Your task to perform on an android device: Open Yahoo.com Image 0: 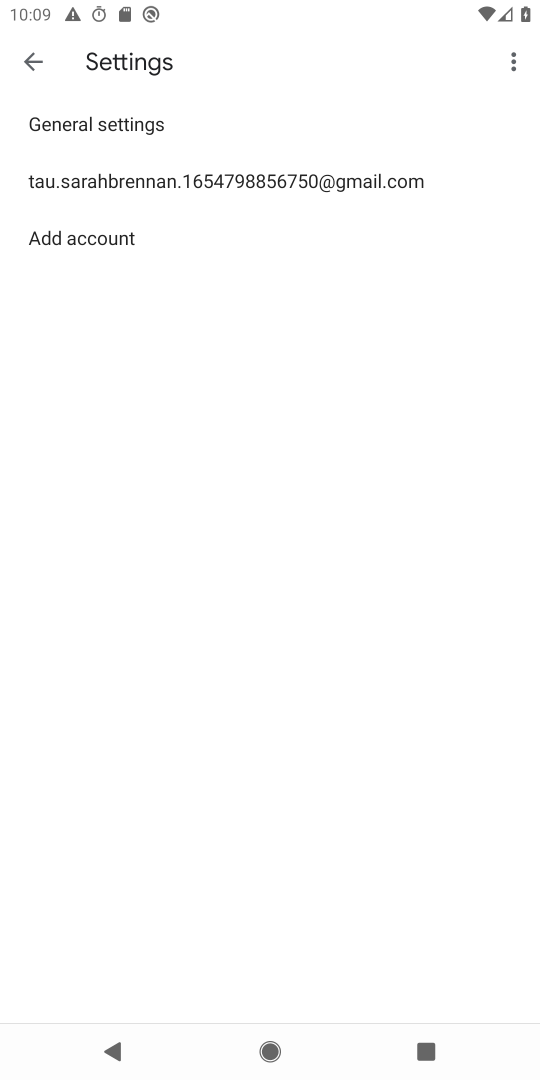
Step 0: press home button
Your task to perform on an android device: Open Yahoo.com Image 1: 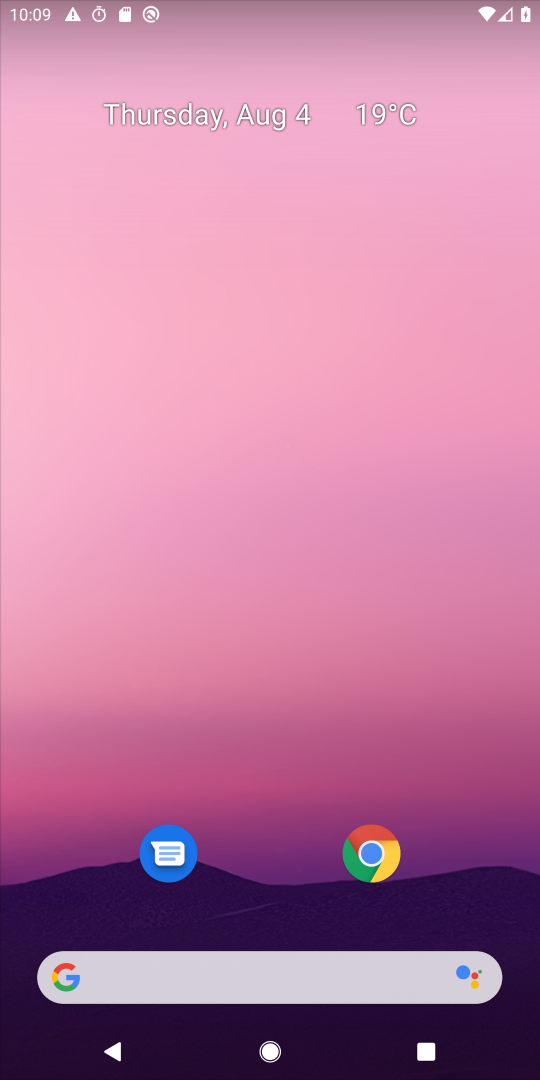
Step 1: click (381, 869)
Your task to perform on an android device: Open Yahoo.com Image 2: 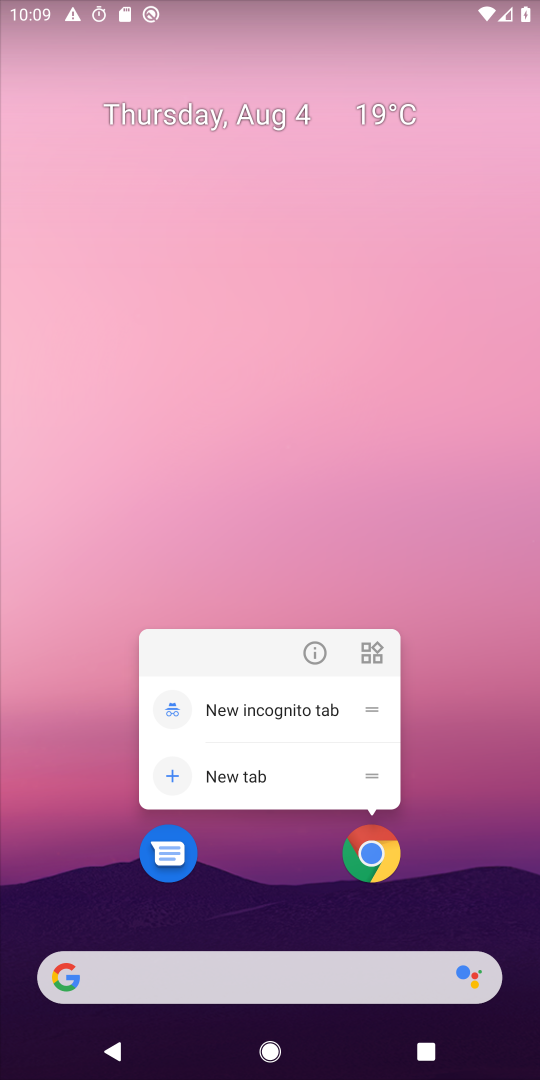
Step 2: click (377, 881)
Your task to perform on an android device: Open Yahoo.com Image 3: 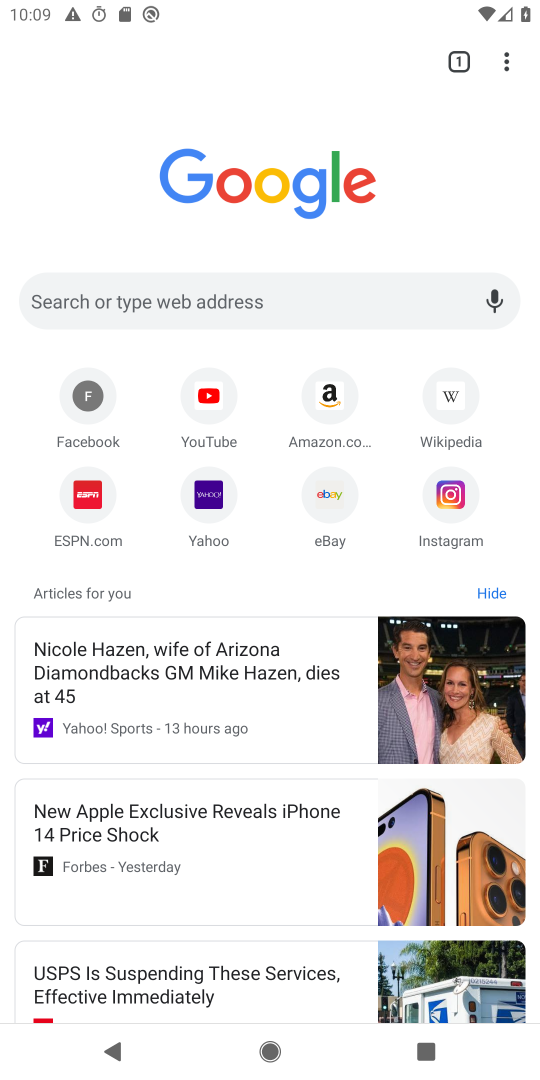
Step 3: click (209, 534)
Your task to perform on an android device: Open Yahoo.com Image 4: 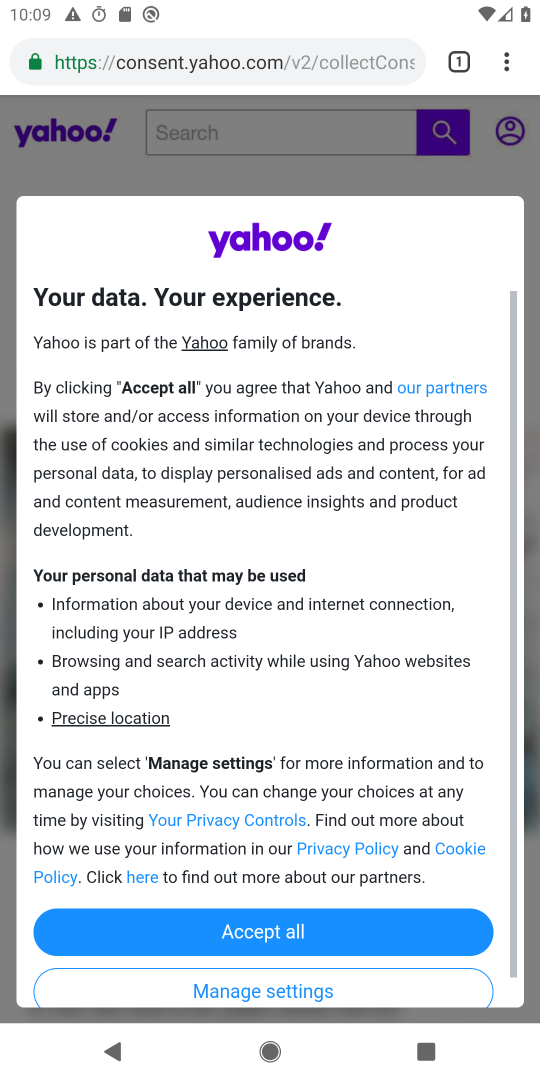
Step 4: task complete